Your task to perform on an android device: Open Yahoo.com Image 0: 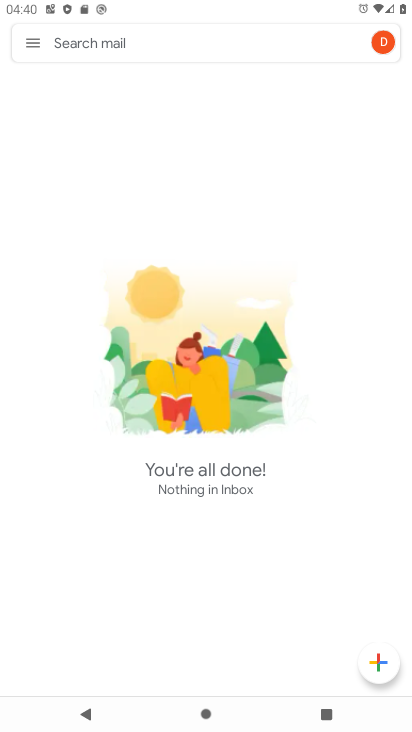
Step 0: press home button
Your task to perform on an android device: Open Yahoo.com Image 1: 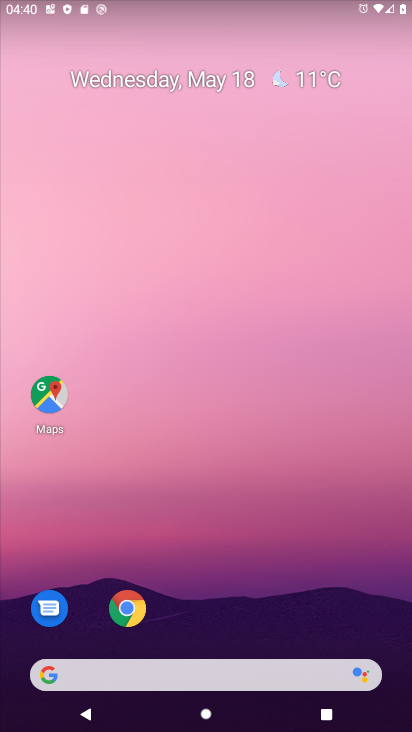
Step 1: click (117, 607)
Your task to perform on an android device: Open Yahoo.com Image 2: 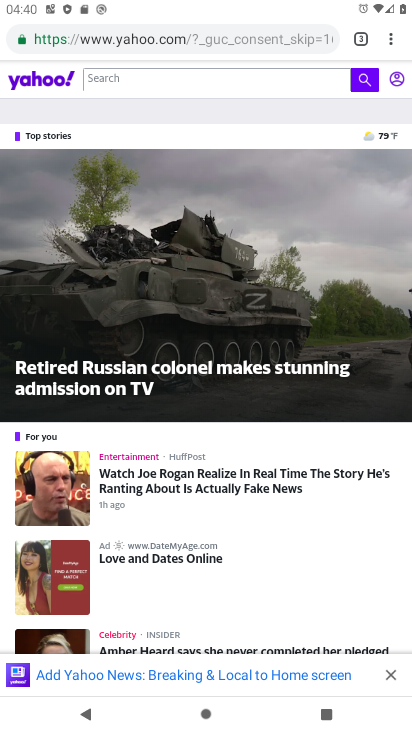
Step 2: task complete